Your task to perform on an android device: see sites visited before in the chrome app Image 0: 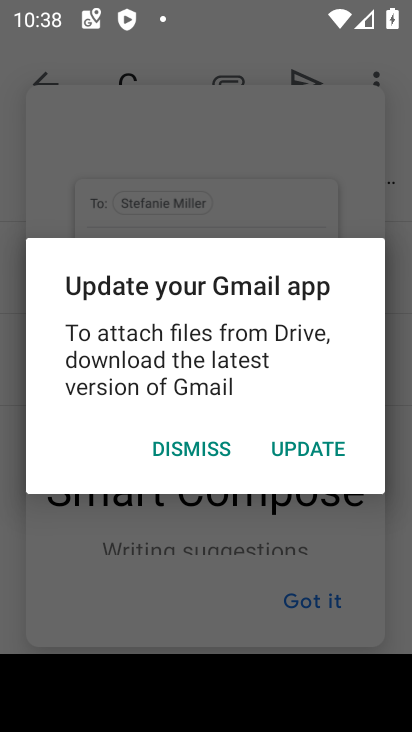
Step 0: press home button
Your task to perform on an android device: see sites visited before in the chrome app Image 1: 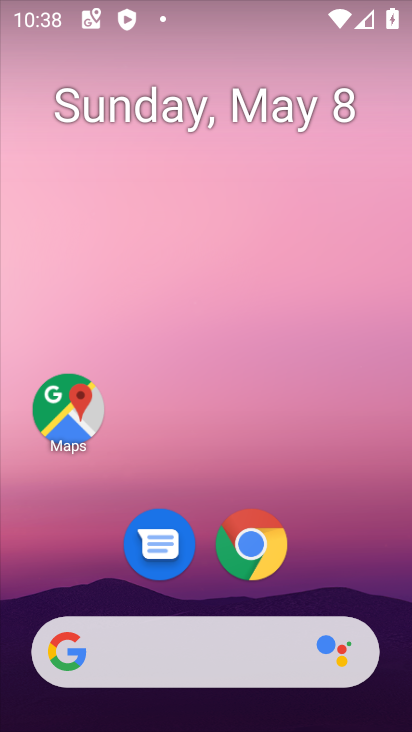
Step 1: click (264, 577)
Your task to perform on an android device: see sites visited before in the chrome app Image 2: 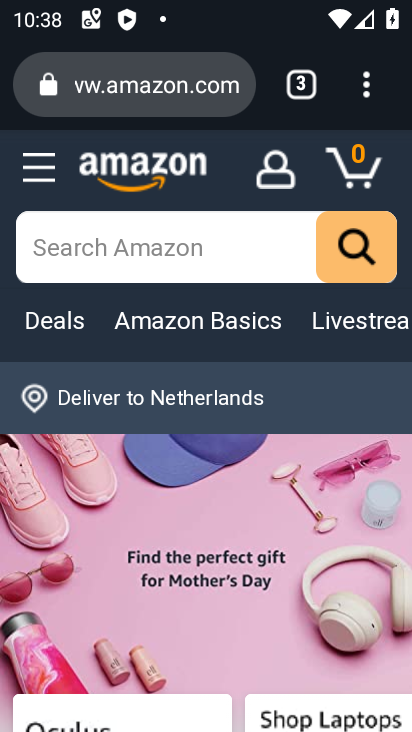
Step 2: click (368, 81)
Your task to perform on an android device: see sites visited before in the chrome app Image 3: 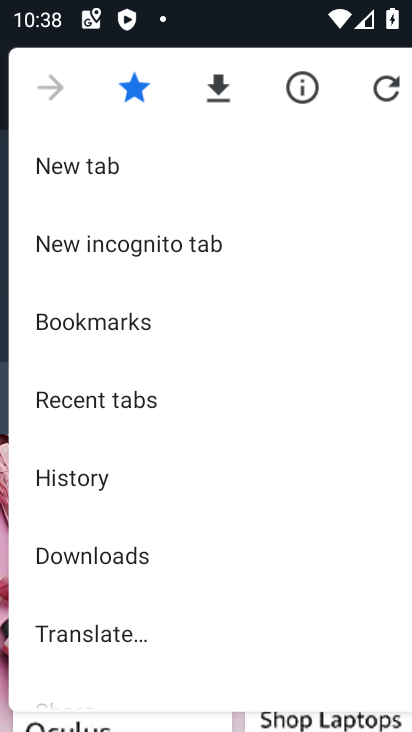
Step 3: click (157, 389)
Your task to perform on an android device: see sites visited before in the chrome app Image 4: 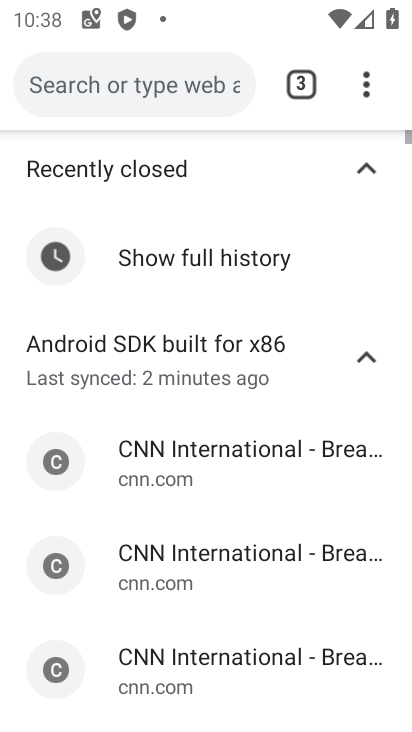
Step 4: task complete